Your task to perform on an android device: turn on the 12-hour format for clock Image 0: 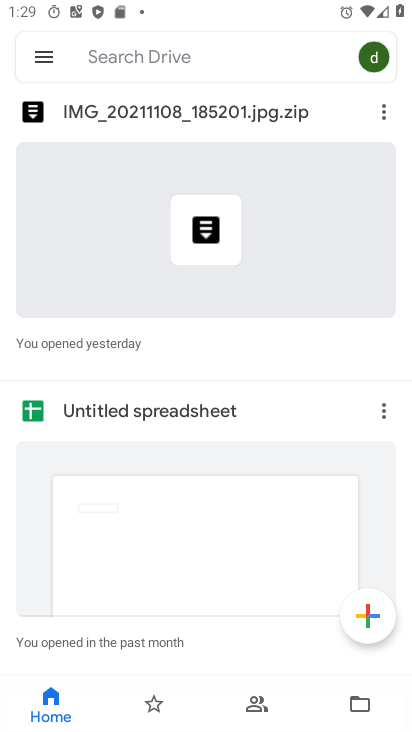
Step 0: press home button
Your task to perform on an android device: turn on the 12-hour format for clock Image 1: 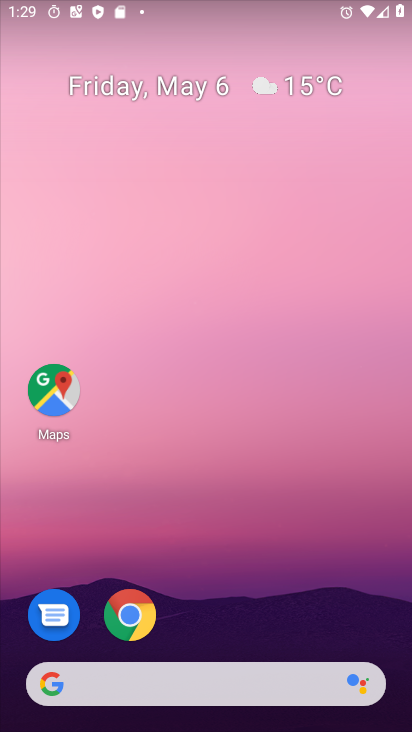
Step 1: drag from (271, 598) to (295, 176)
Your task to perform on an android device: turn on the 12-hour format for clock Image 2: 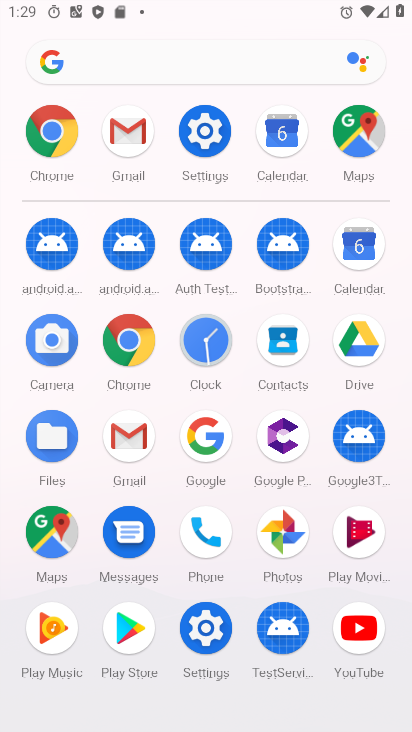
Step 2: click (208, 337)
Your task to perform on an android device: turn on the 12-hour format for clock Image 3: 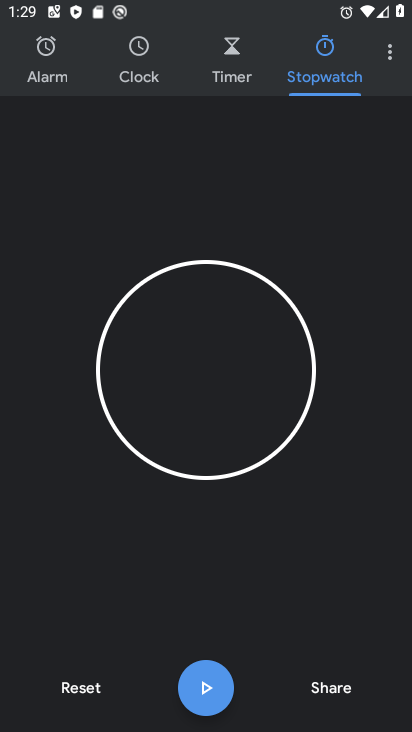
Step 3: click (384, 56)
Your task to perform on an android device: turn on the 12-hour format for clock Image 4: 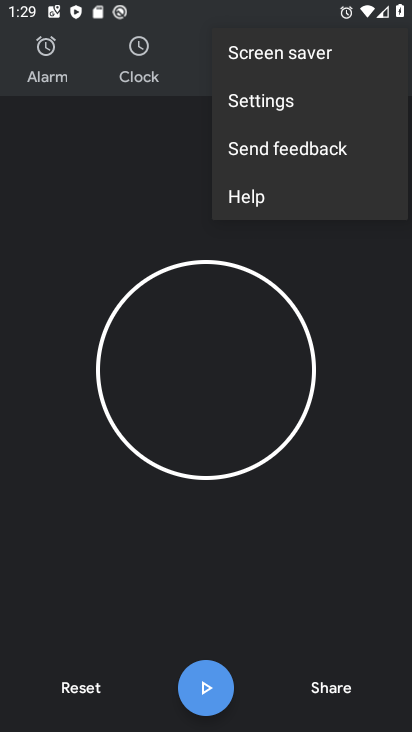
Step 4: click (313, 109)
Your task to perform on an android device: turn on the 12-hour format for clock Image 5: 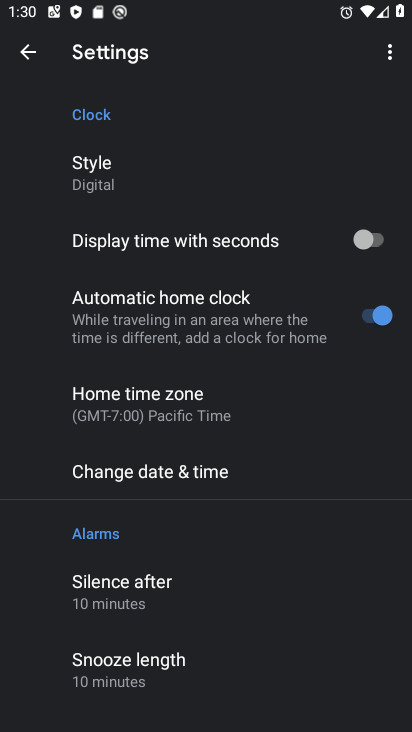
Step 5: click (258, 473)
Your task to perform on an android device: turn on the 12-hour format for clock Image 6: 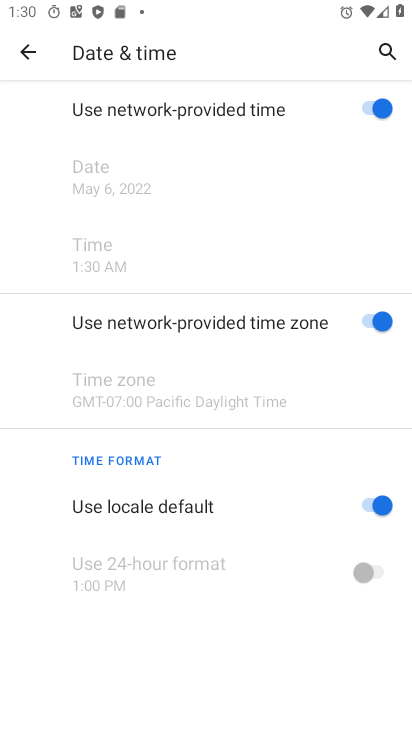
Step 6: task complete